Your task to perform on an android device: Toggle the flashlight Image 0: 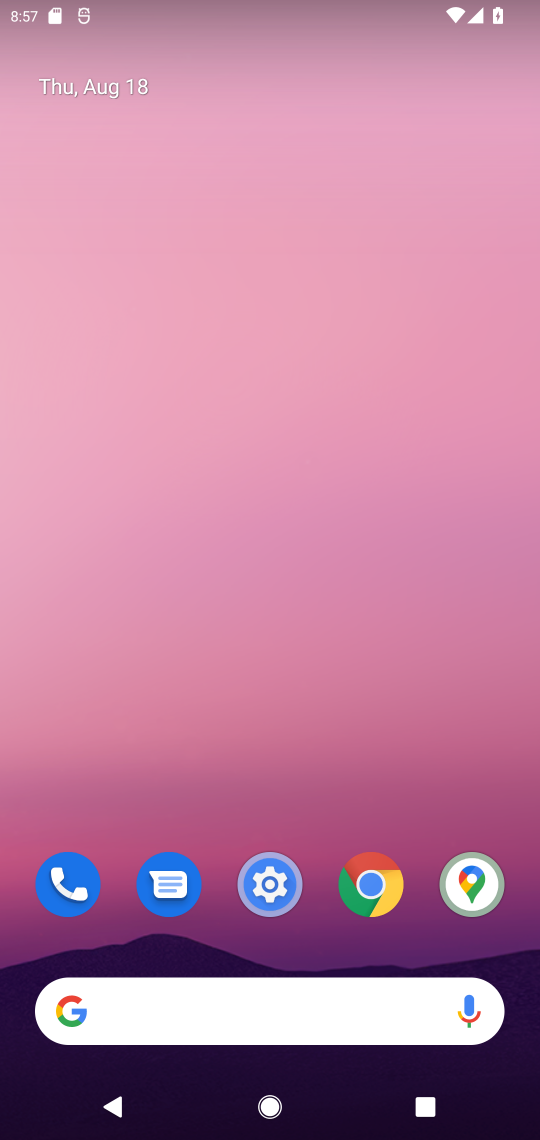
Step 0: click (276, 895)
Your task to perform on an android device: Toggle the flashlight Image 1: 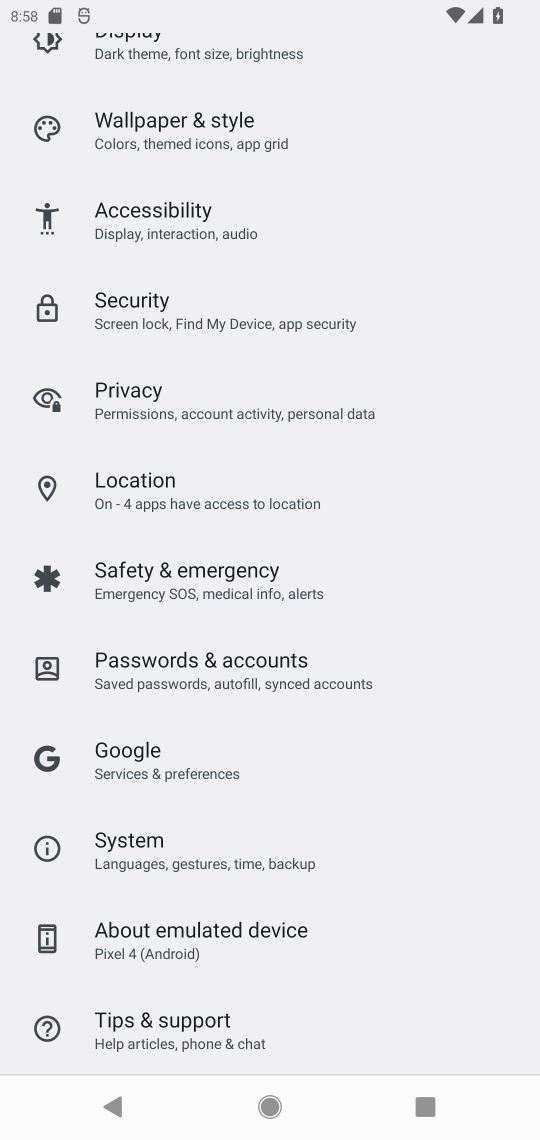
Step 1: task complete